Your task to perform on an android device: open app "Skype" (install if not already installed) Image 0: 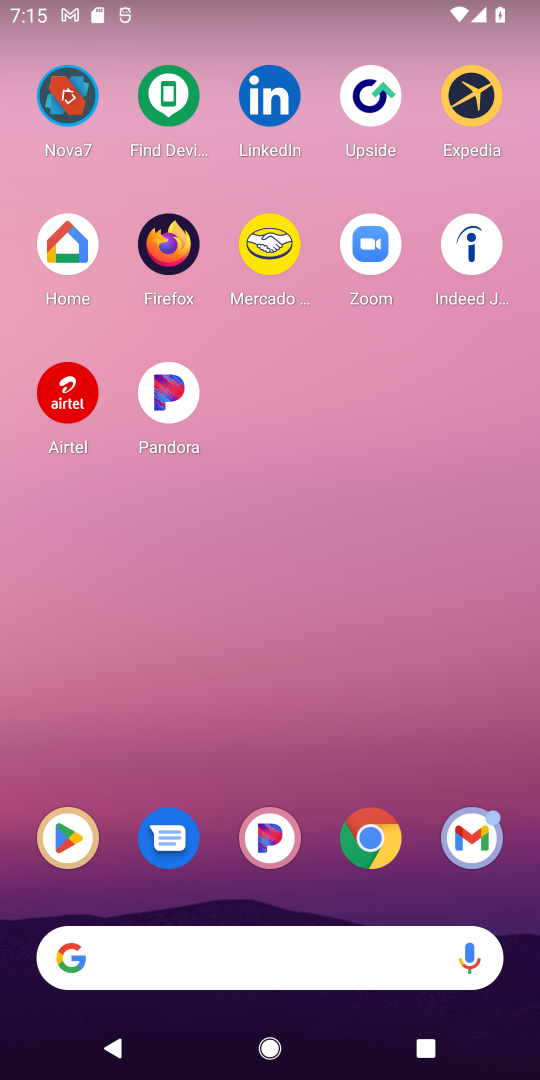
Step 0: click (70, 834)
Your task to perform on an android device: open app "Skype" (install if not already installed) Image 1: 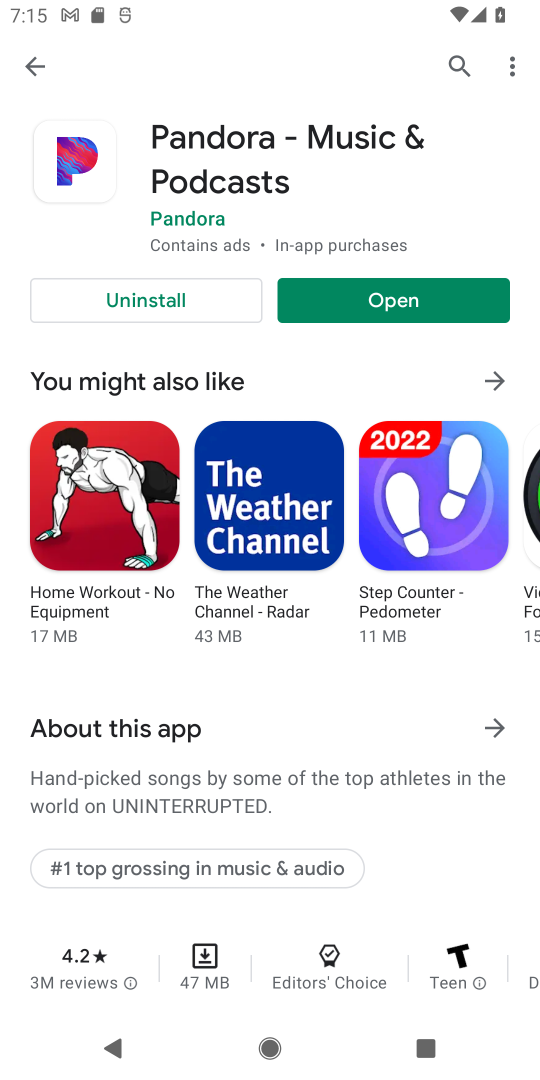
Step 1: click (450, 58)
Your task to perform on an android device: open app "Skype" (install if not already installed) Image 2: 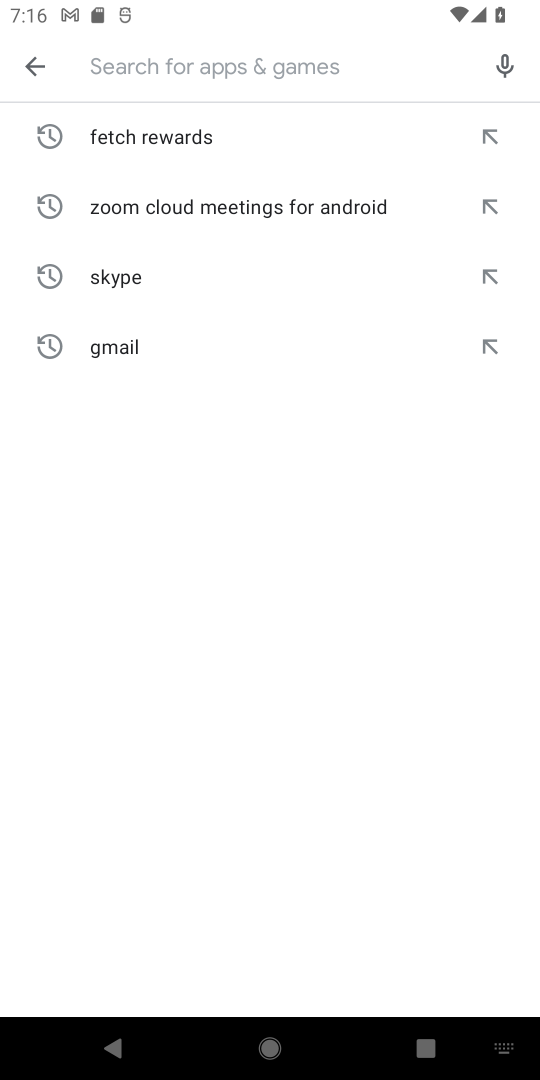
Step 2: type "skype"
Your task to perform on an android device: open app "Skype" (install if not already installed) Image 3: 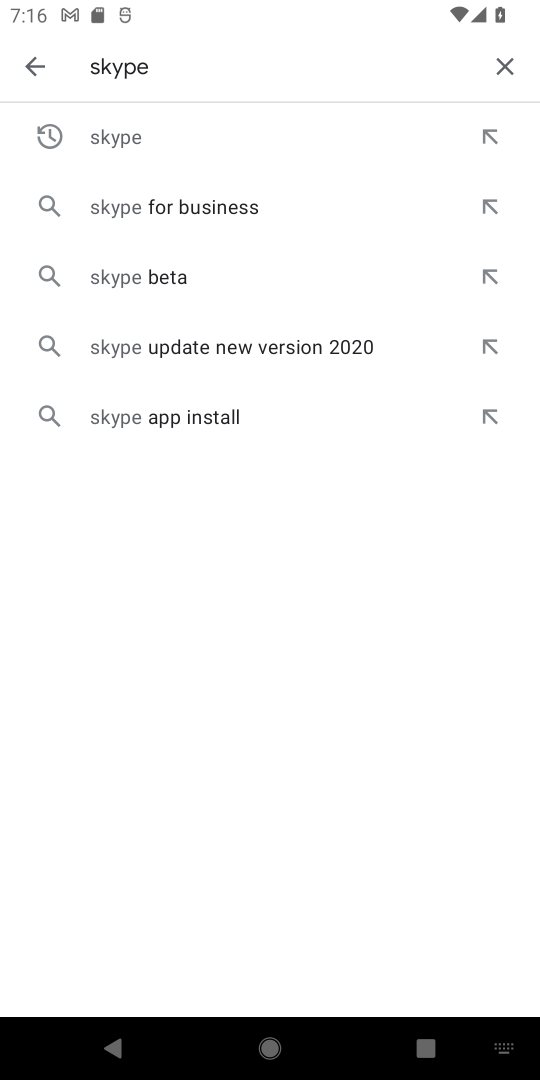
Step 3: click (234, 138)
Your task to perform on an android device: open app "Skype" (install if not already installed) Image 4: 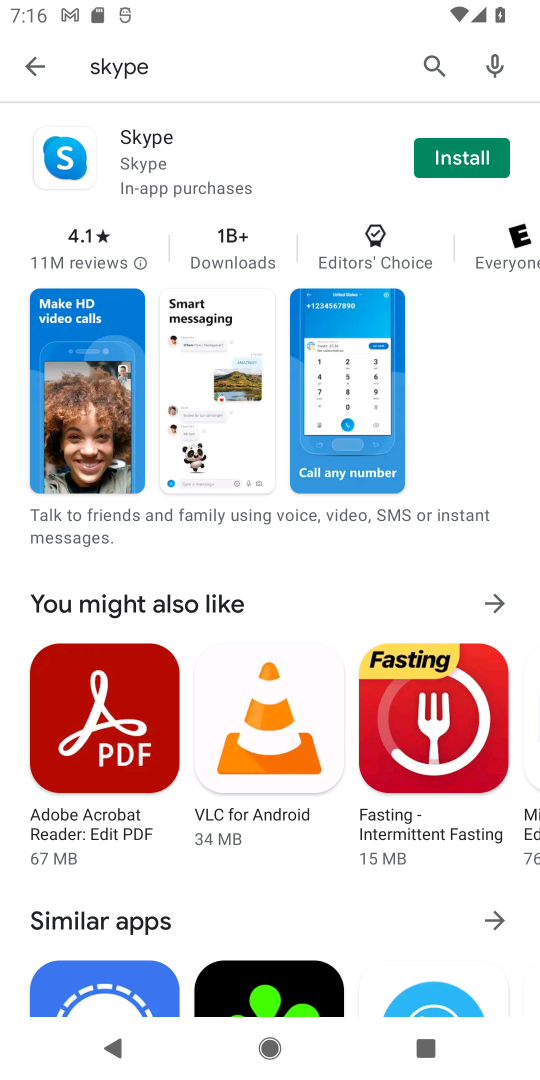
Step 4: click (197, 129)
Your task to perform on an android device: open app "Skype" (install if not already installed) Image 5: 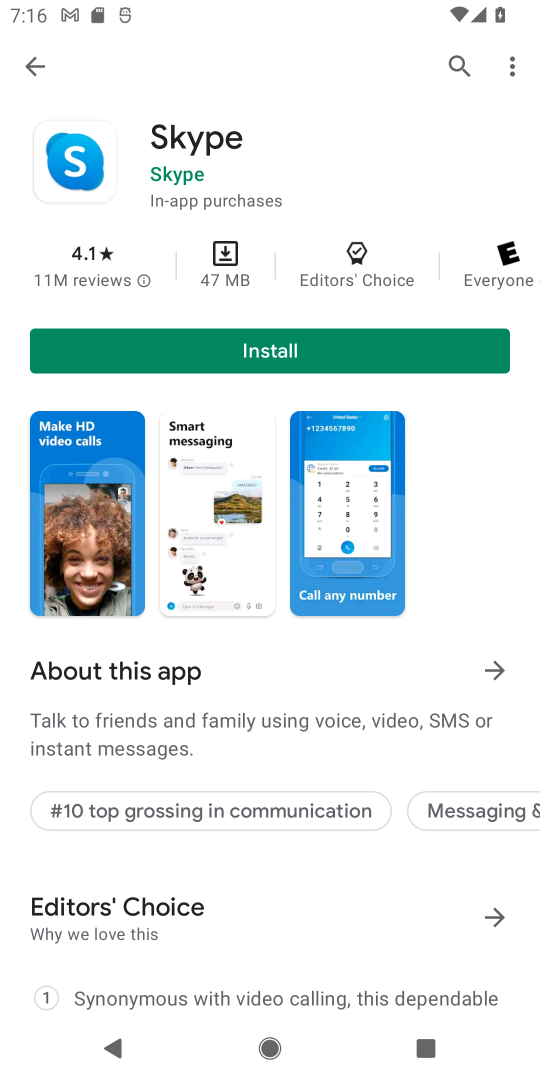
Step 5: click (256, 356)
Your task to perform on an android device: open app "Skype" (install if not already installed) Image 6: 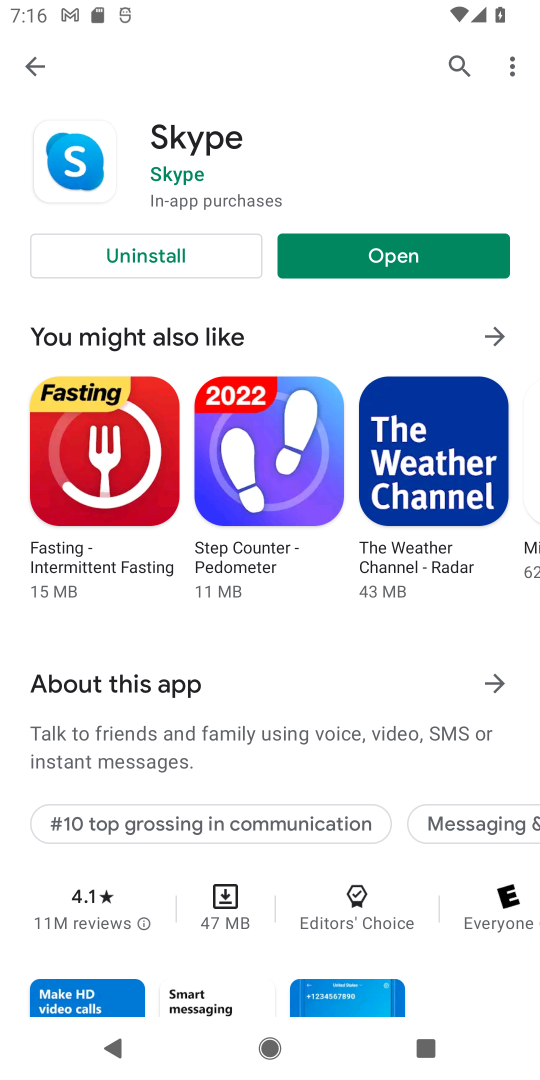
Step 6: click (446, 259)
Your task to perform on an android device: open app "Skype" (install if not already installed) Image 7: 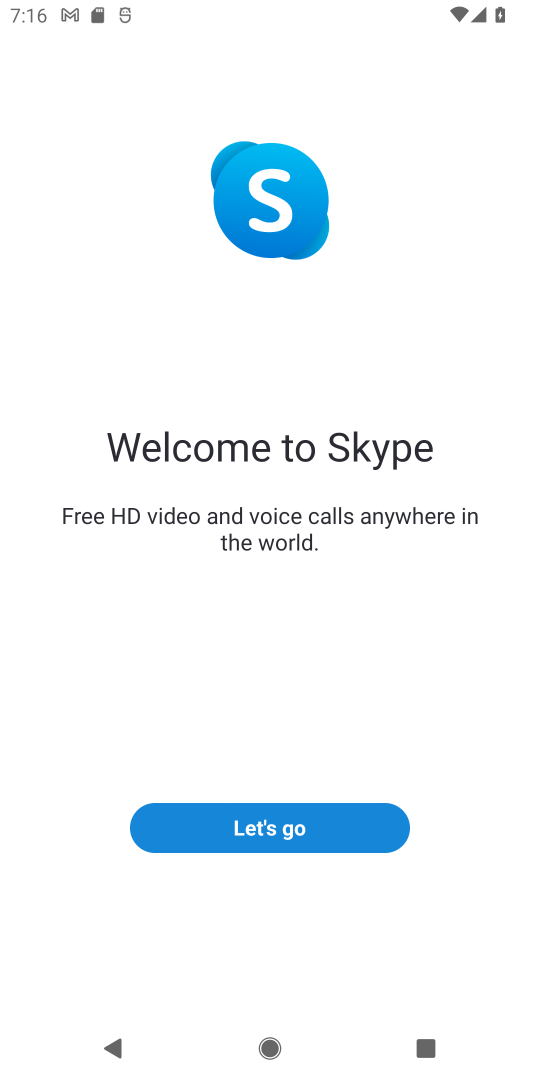
Step 7: task complete